Your task to perform on an android device: Is it going to rain this weekend? Image 0: 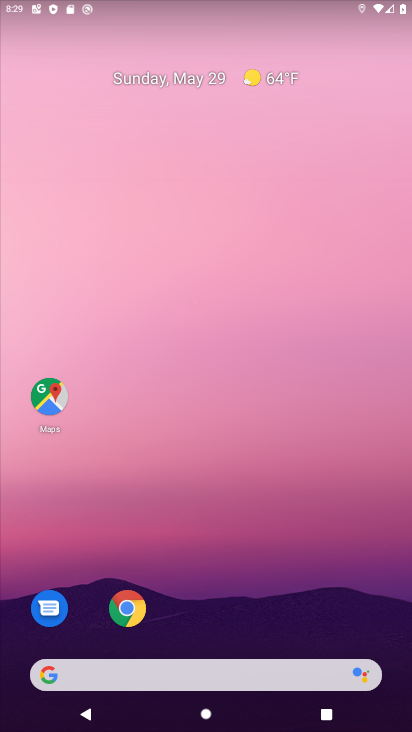
Step 0: drag from (236, 557) to (174, 150)
Your task to perform on an android device: Is it going to rain this weekend? Image 1: 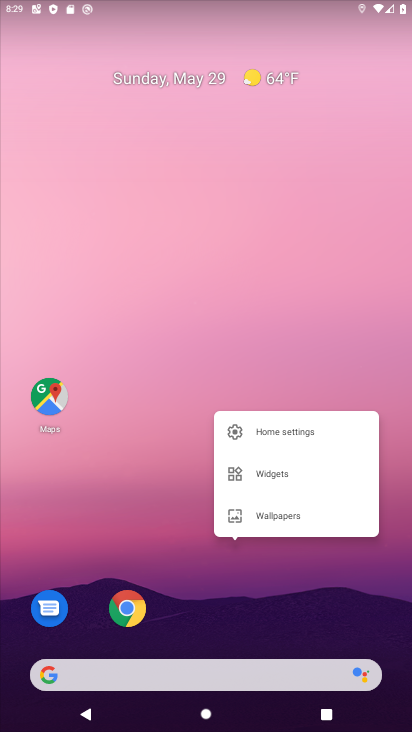
Step 1: click (146, 276)
Your task to perform on an android device: Is it going to rain this weekend? Image 2: 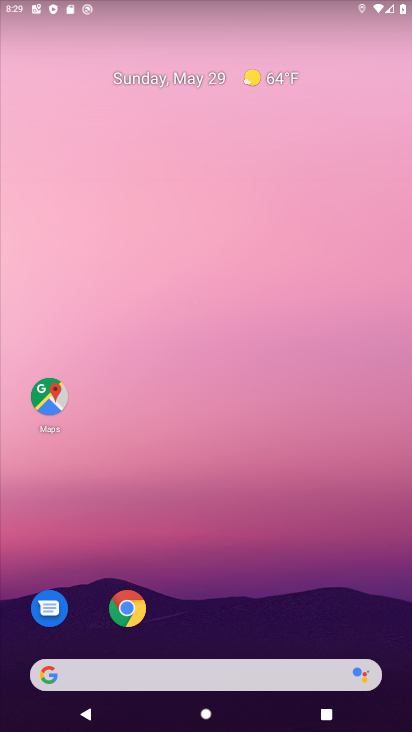
Step 2: click (163, 682)
Your task to perform on an android device: Is it going to rain this weekend? Image 3: 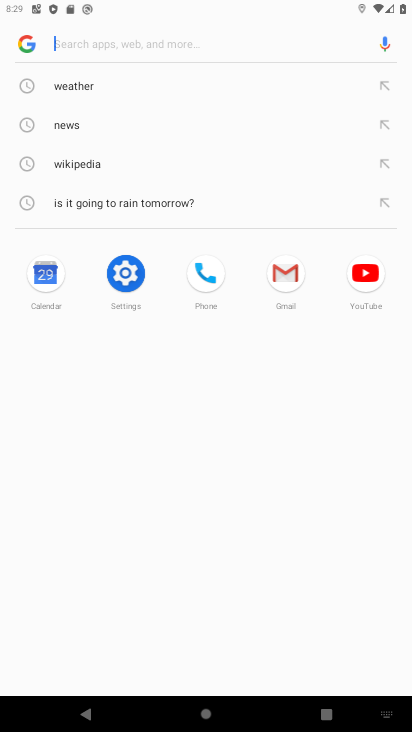
Step 3: click (71, 83)
Your task to perform on an android device: Is it going to rain this weekend? Image 4: 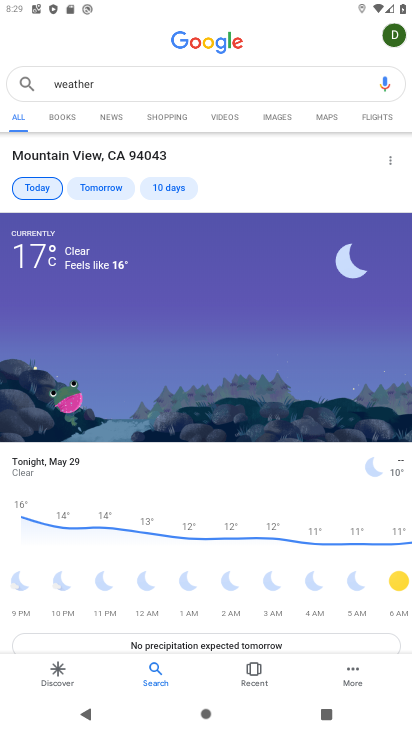
Step 4: click (159, 191)
Your task to perform on an android device: Is it going to rain this weekend? Image 5: 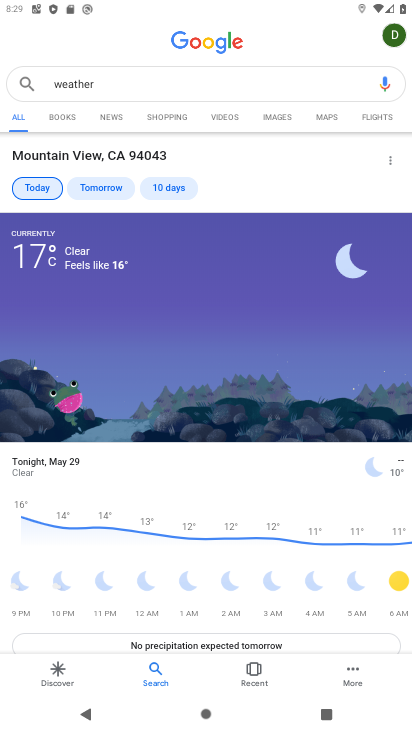
Step 5: click (162, 190)
Your task to perform on an android device: Is it going to rain this weekend? Image 6: 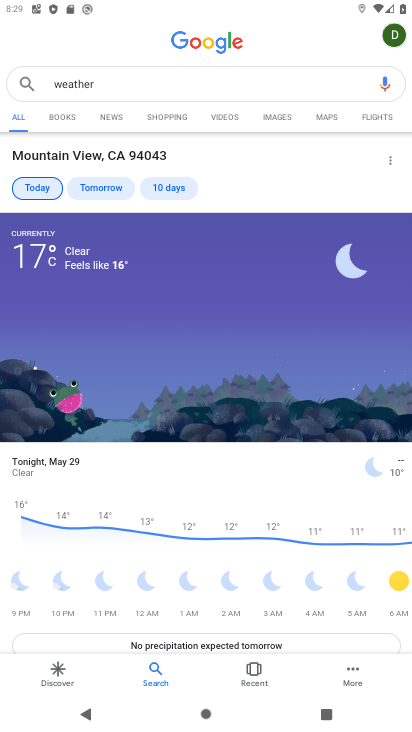
Step 6: click (162, 190)
Your task to perform on an android device: Is it going to rain this weekend? Image 7: 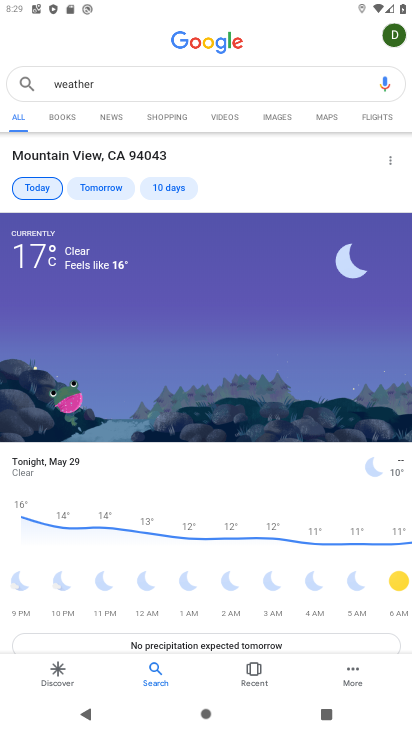
Step 7: click (162, 190)
Your task to perform on an android device: Is it going to rain this weekend? Image 8: 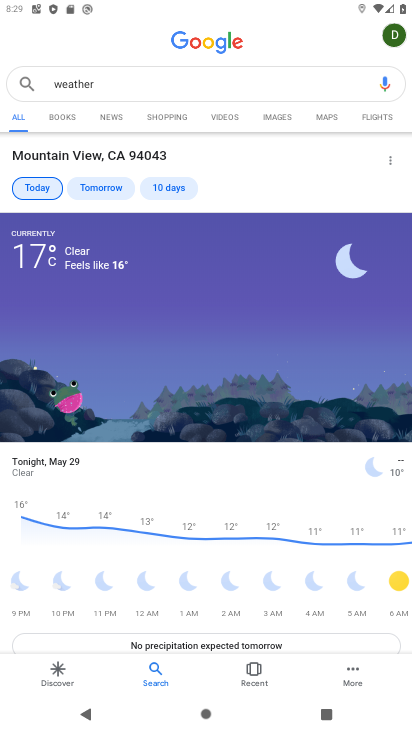
Step 8: click (162, 190)
Your task to perform on an android device: Is it going to rain this weekend? Image 9: 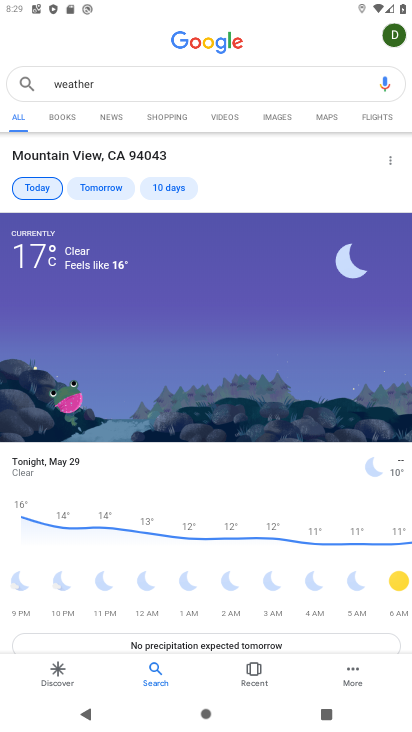
Step 9: click (162, 190)
Your task to perform on an android device: Is it going to rain this weekend? Image 10: 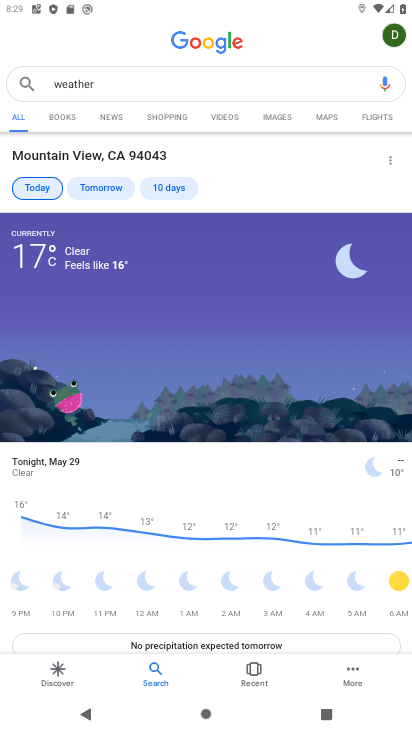
Step 10: click (162, 190)
Your task to perform on an android device: Is it going to rain this weekend? Image 11: 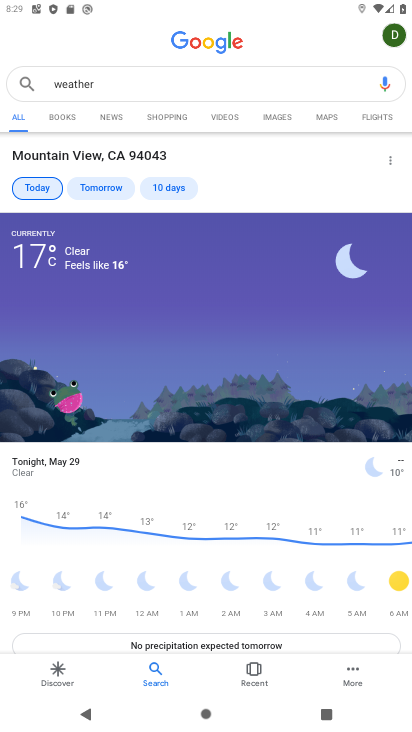
Step 11: click (162, 190)
Your task to perform on an android device: Is it going to rain this weekend? Image 12: 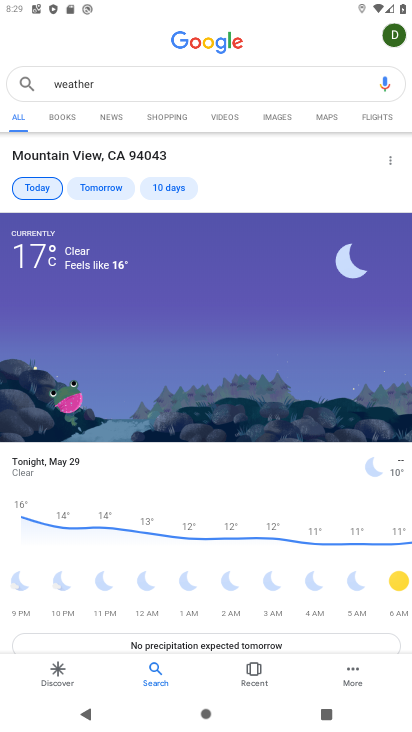
Step 12: click (162, 190)
Your task to perform on an android device: Is it going to rain this weekend? Image 13: 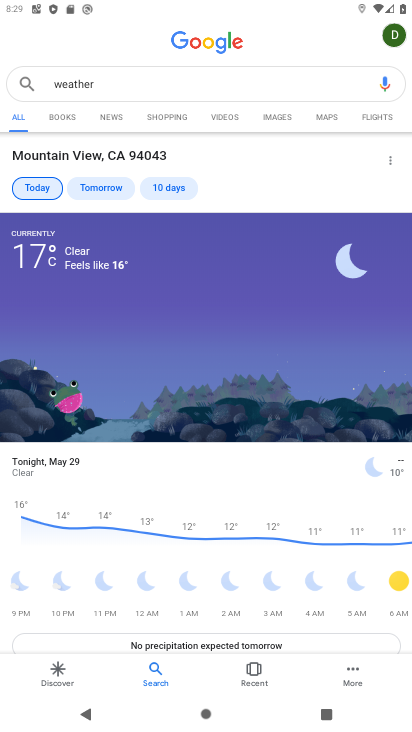
Step 13: click (162, 190)
Your task to perform on an android device: Is it going to rain this weekend? Image 14: 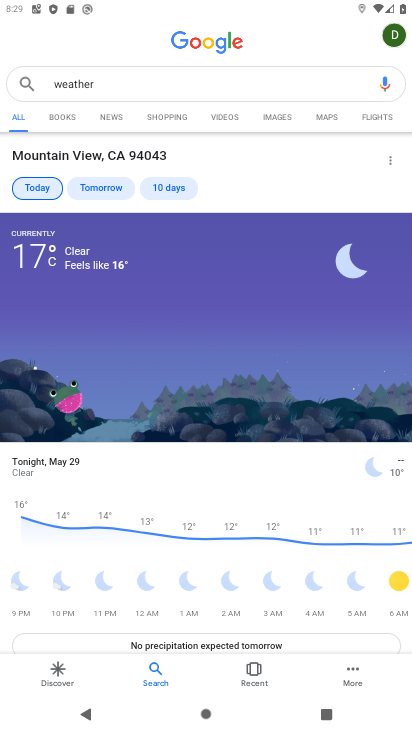
Step 14: click (162, 190)
Your task to perform on an android device: Is it going to rain this weekend? Image 15: 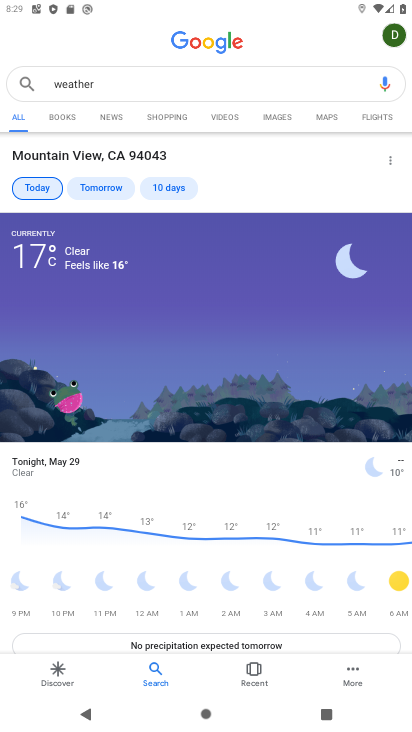
Step 15: click (162, 190)
Your task to perform on an android device: Is it going to rain this weekend? Image 16: 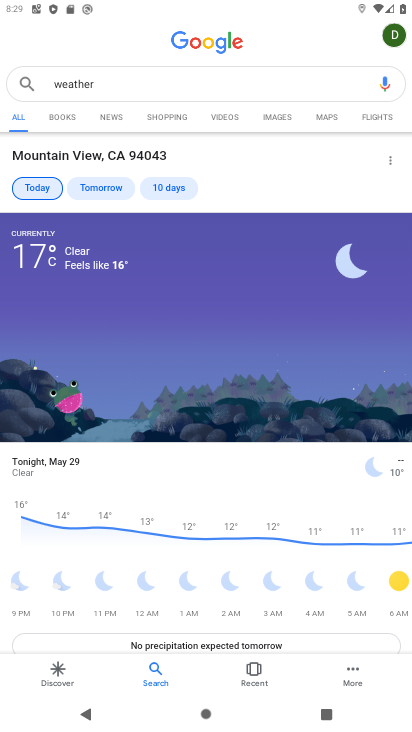
Step 16: click (162, 190)
Your task to perform on an android device: Is it going to rain this weekend? Image 17: 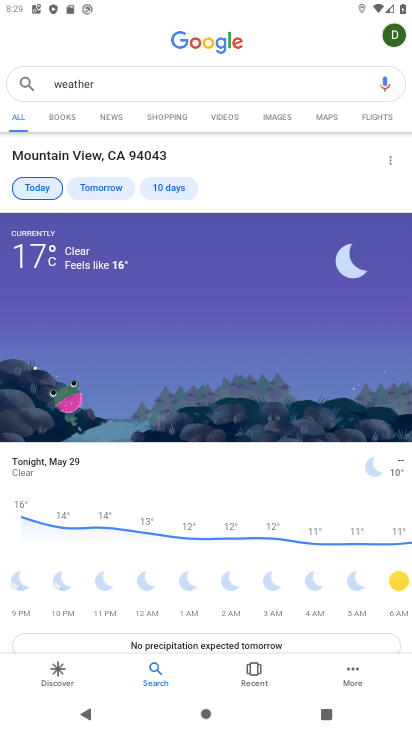
Step 17: click (162, 190)
Your task to perform on an android device: Is it going to rain this weekend? Image 18: 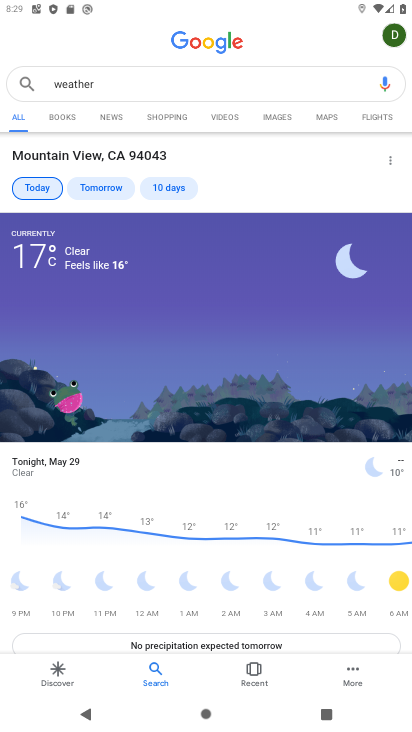
Step 18: click (183, 184)
Your task to perform on an android device: Is it going to rain this weekend? Image 19: 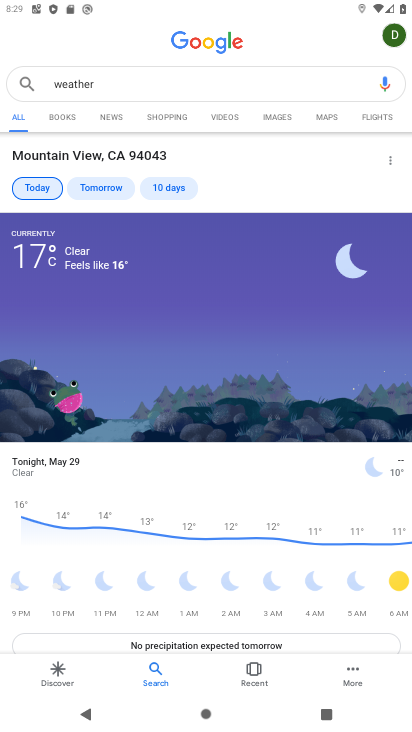
Step 19: click (183, 184)
Your task to perform on an android device: Is it going to rain this weekend? Image 20: 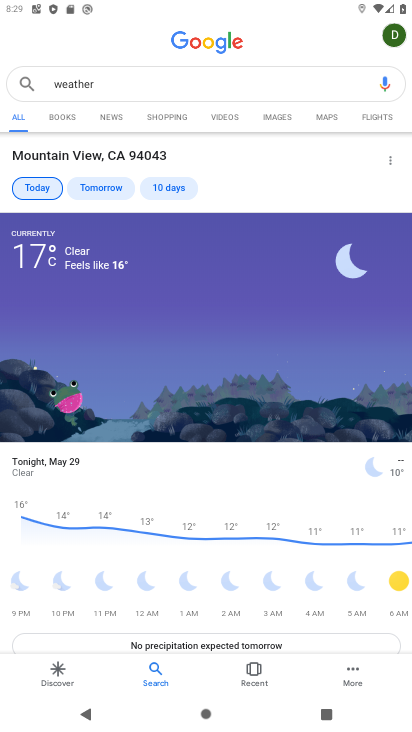
Step 20: click (183, 184)
Your task to perform on an android device: Is it going to rain this weekend? Image 21: 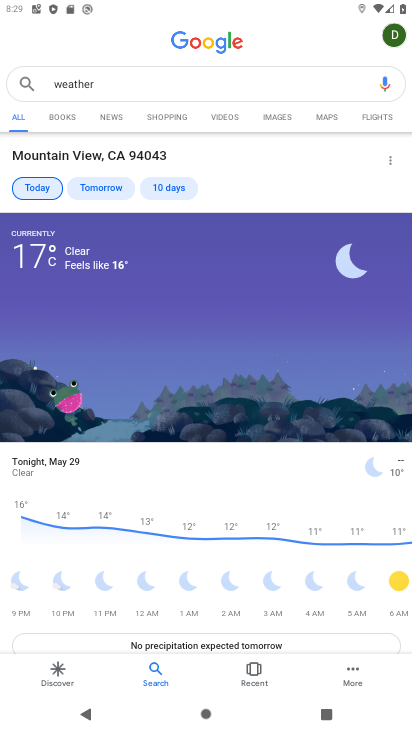
Step 21: click (183, 184)
Your task to perform on an android device: Is it going to rain this weekend? Image 22: 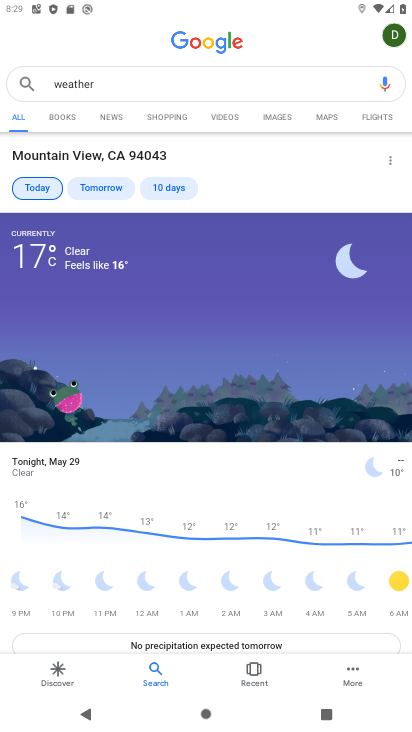
Step 22: click (183, 184)
Your task to perform on an android device: Is it going to rain this weekend? Image 23: 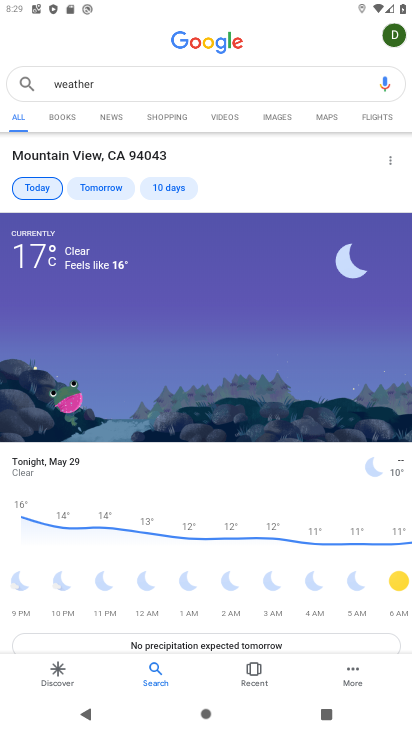
Step 23: click (183, 184)
Your task to perform on an android device: Is it going to rain this weekend? Image 24: 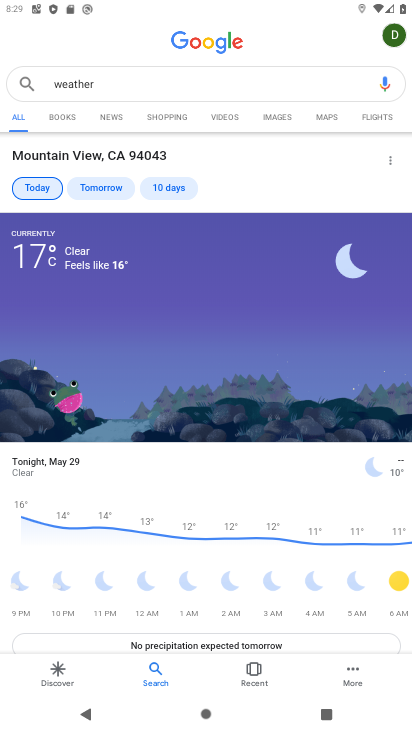
Step 24: click (167, 187)
Your task to perform on an android device: Is it going to rain this weekend? Image 25: 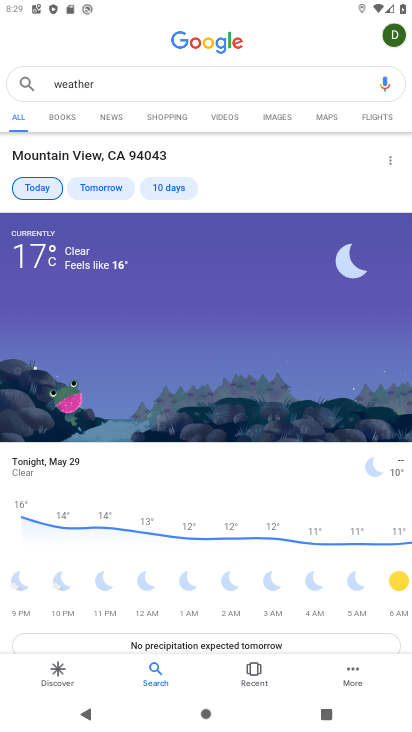
Step 25: click (167, 187)
Your task to perform on an android device: Is it going to rain this weekend? Image 26: 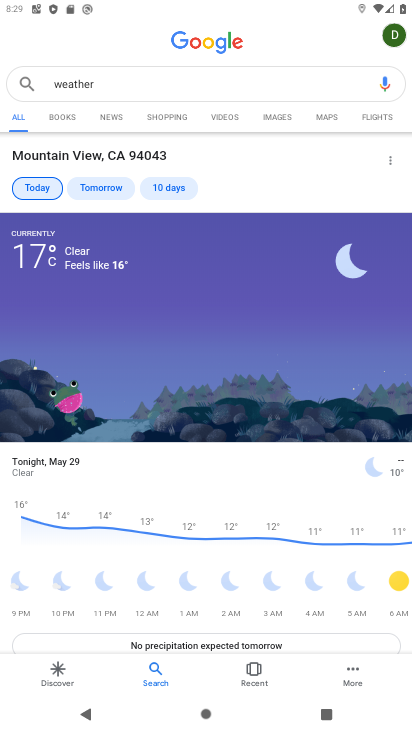
Step 26: click (167, 187)
Your task to perform on an android device: Is it going to rain this weekend? Image 27: 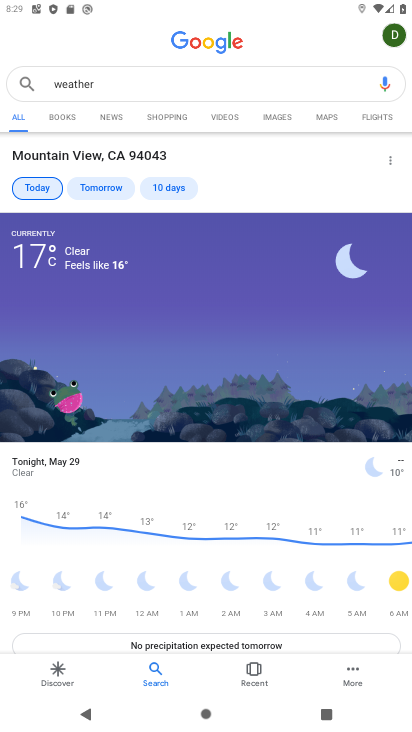
Step 27: click (167, 187)
Your task to perform on an android device: Is it going to rain this weekend? Image 28: 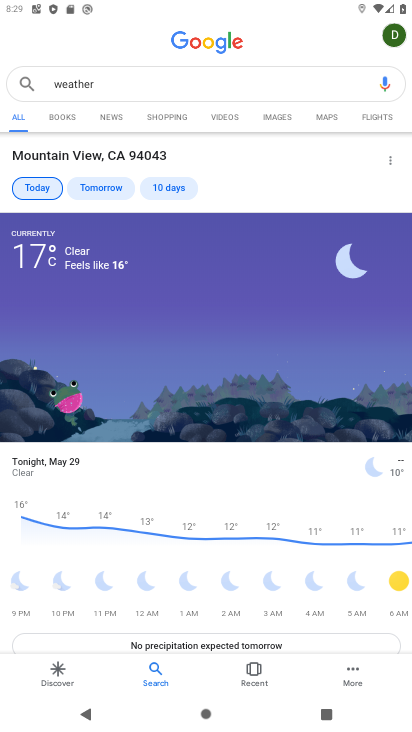
Step 28: click (167, 187)
Your task to perform on an android device: Is it going to rain this weekend? Image 29: 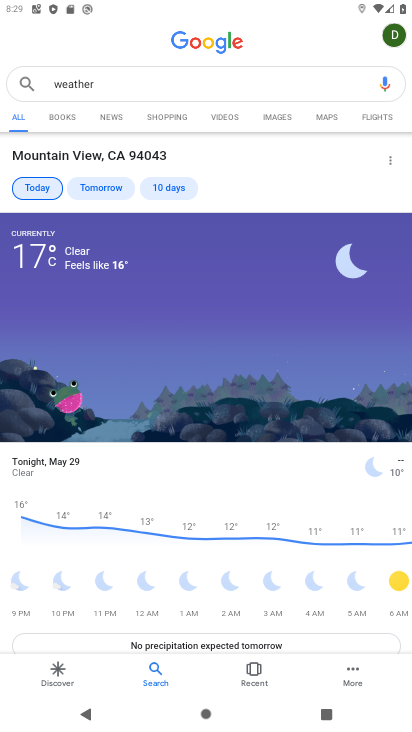
Step 29: click (167, 187)
Your task to perform on an android device: Is it going to rain this weekend? Image 30: 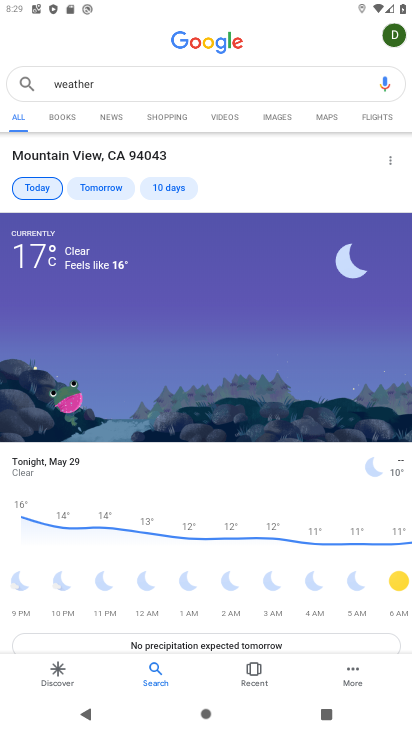
Step 30: click (167, 187)
Your task to perform on an android device: Is it going to rain this weekend? Image 31: 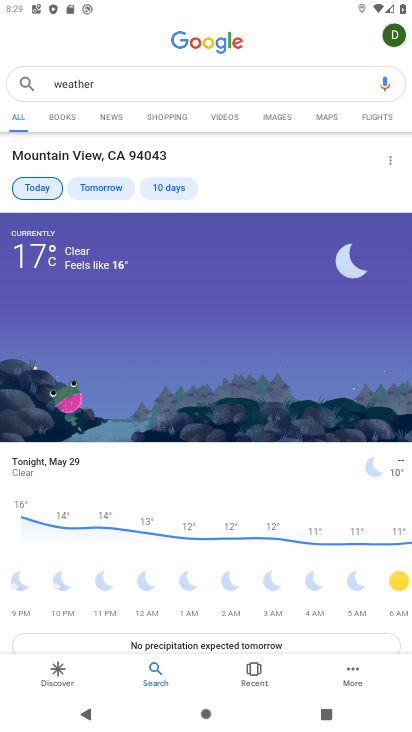
Step 31: click (167, 187)
Your task to perform on an android device: Is it going to rain this weekend? Image 32: 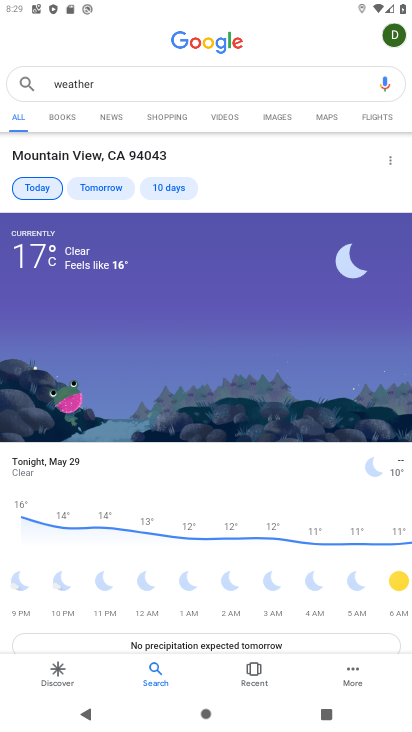
Step 32: click (167, 187)
Your task to perform on an android device: Is it going to rain this weekend? Image 33: 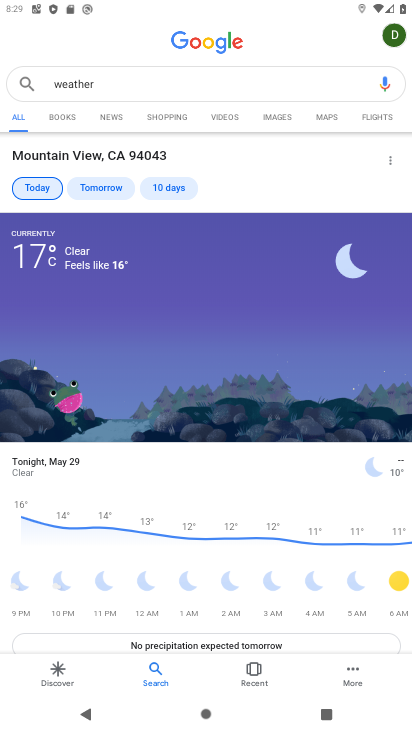
Step 33: click (167, 187)
Your task to perform on an android device: Is it going to rain this weekend? Image 34: 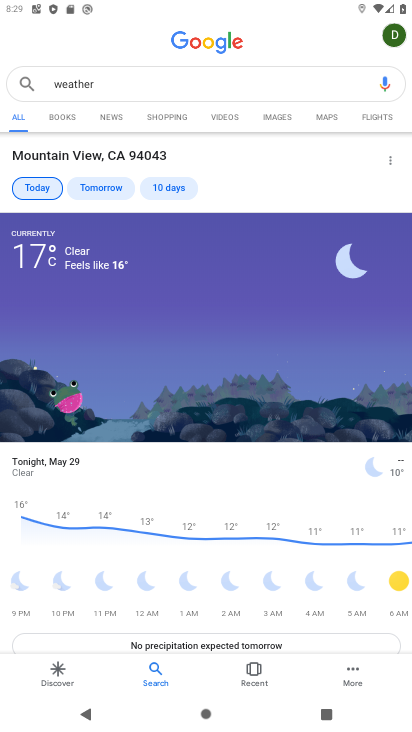
Step 34: click (167, 187)
Your task to perform on an android device: Is it going to rain this weekend? Image 35: 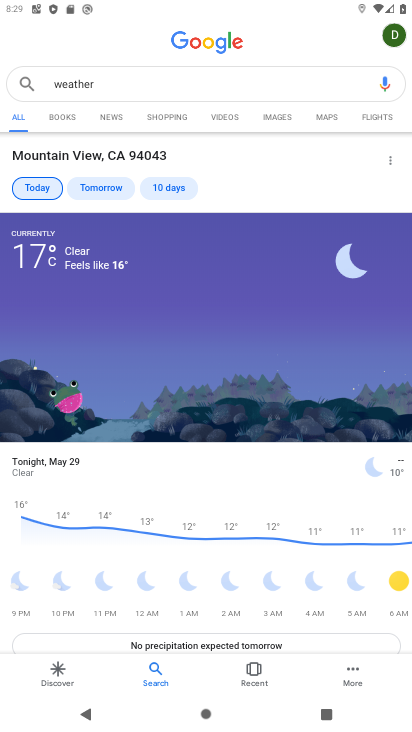
Step 35: click (167, 187)
Your task to perform on an android device: Is it going to rain this weekend? Image 36: 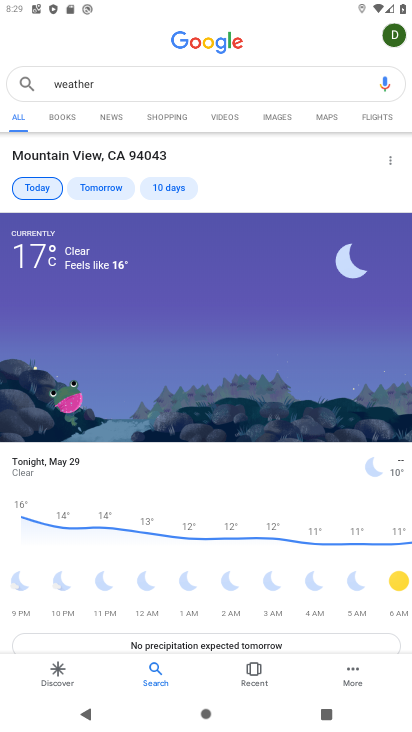
Step 36: click (167, 187)
Your task to perform on an android device: Is it going to rain this weekend? Image 37: 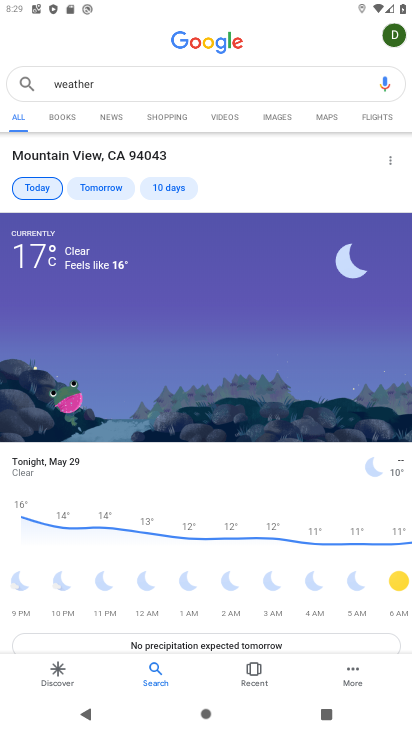
Step 37: click (167, 187)
Your task to perform on an android device: Is it going to rain this weekend? Image 38: 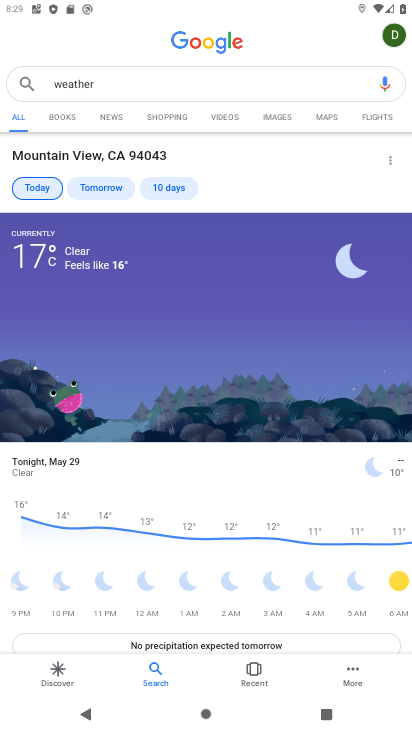
Step 38: click (167, 187)
Your task to perform on an android device: Is it going to rain this weekend? Image 39: 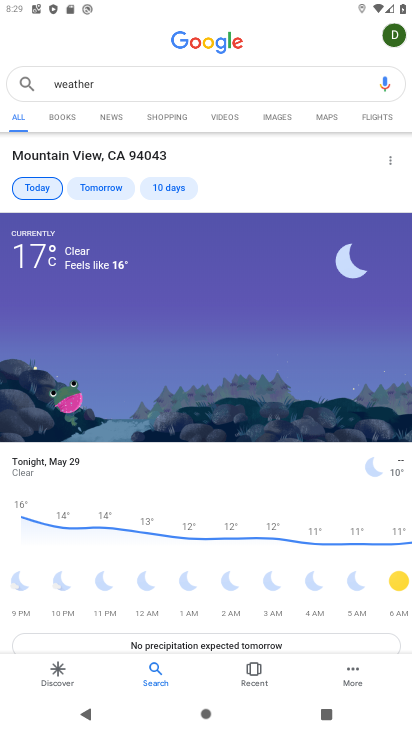
Step 39: click (167, 187)
Your task to perform on an android device: Is it going to rain this weekend? Image 40: 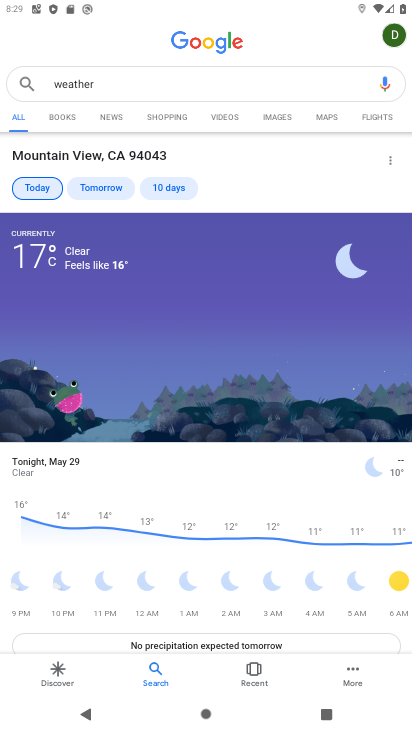
Step 40: click (167, 187)
Your task to perform on an android device: Is it going to rain this weekend? Image 41: 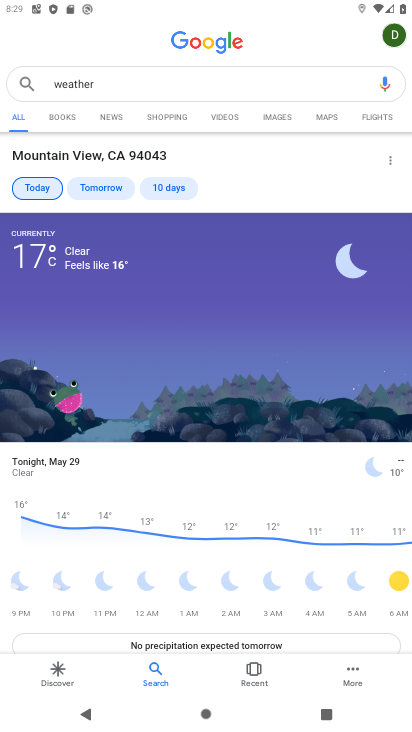
Step 41: click (167, 187)
Your task to perform on an android device: Is it going to rain this weekend? Image 42: 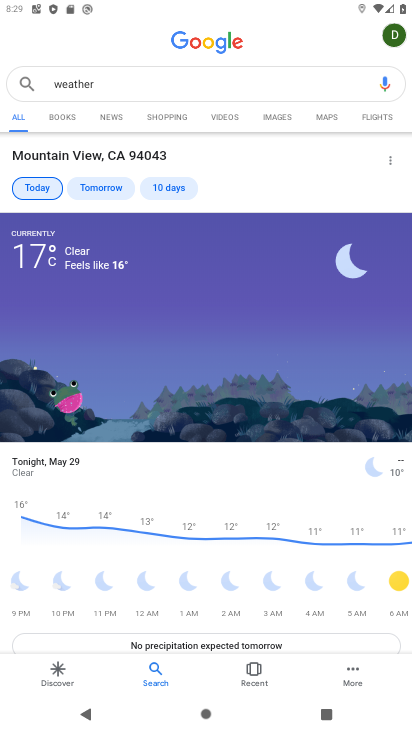
Step 42: click (167, 187)
Your task to perform on an android device: Is it going to rain this weekend? Image 43: 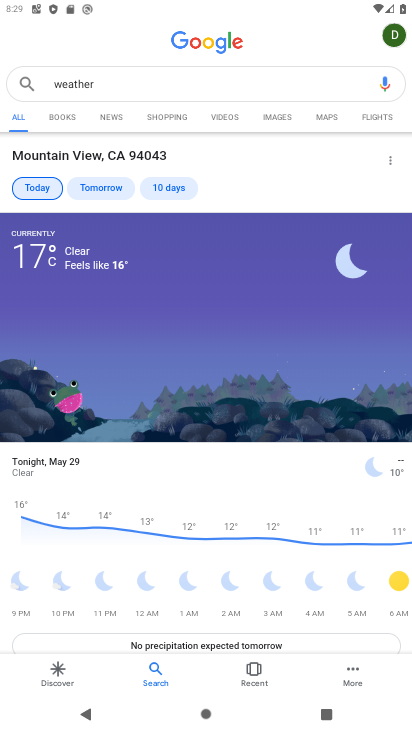
Step 43: click (167, 187)
Your task to perform on an android device: Is it going to rain this weekend? Image 44: 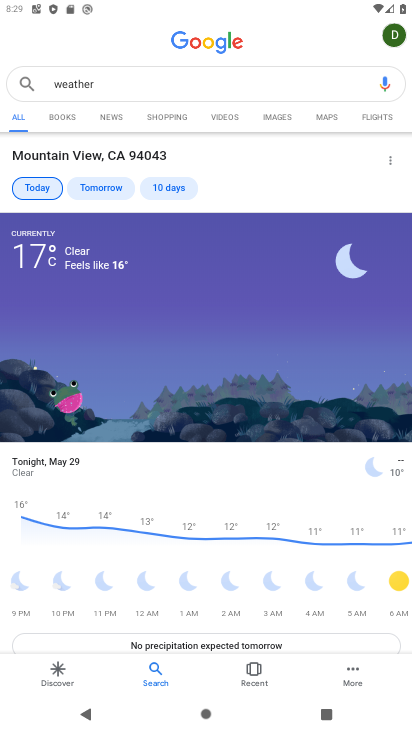
Step 44: click (167, 74)
Your task to perform on an android device: Is it going to rain this weekend? Image 45: 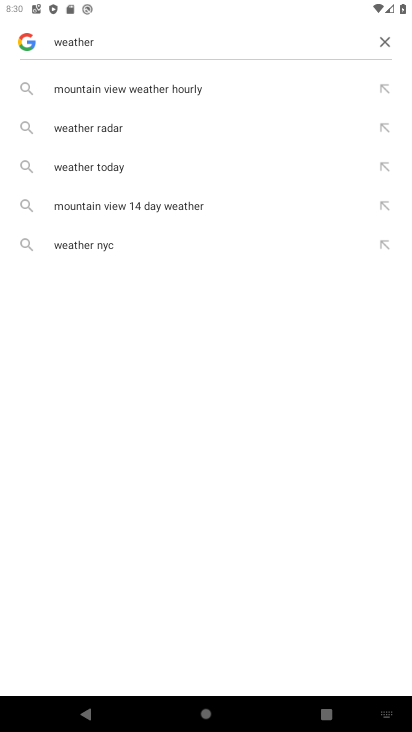
Step 45: type " this weekend"
Your task to perform on an android device: Is it going to rain this weekend? Image 46: 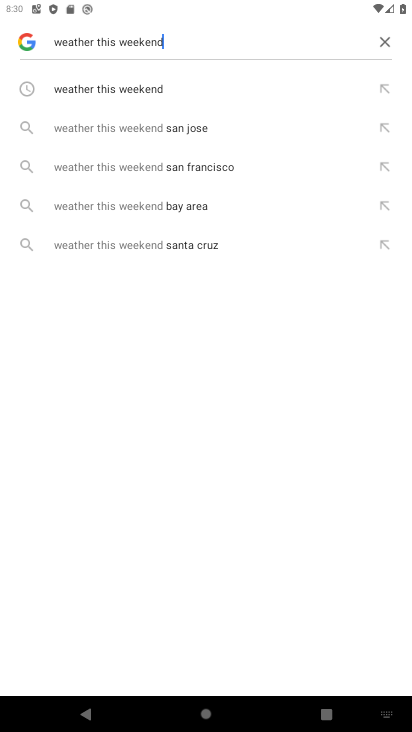
Step 46: click (150, 91)
Your task to perform on an android device: Is it going to rain this weekend? Image 47: 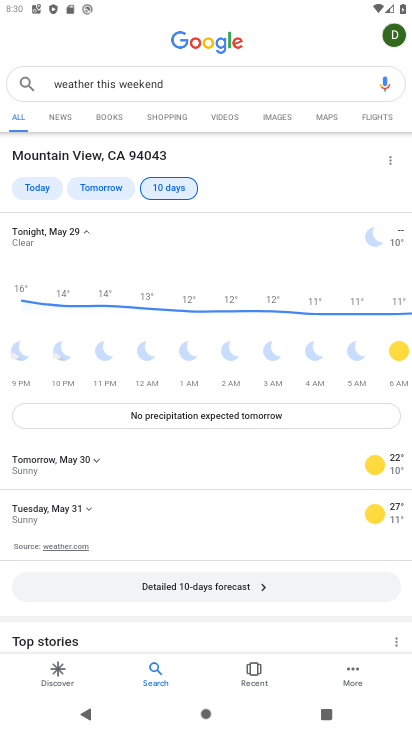
Step 47: task complete